Your task to perform on an android device: install app "HBO Max: Stream TV & Movies" Image 0: 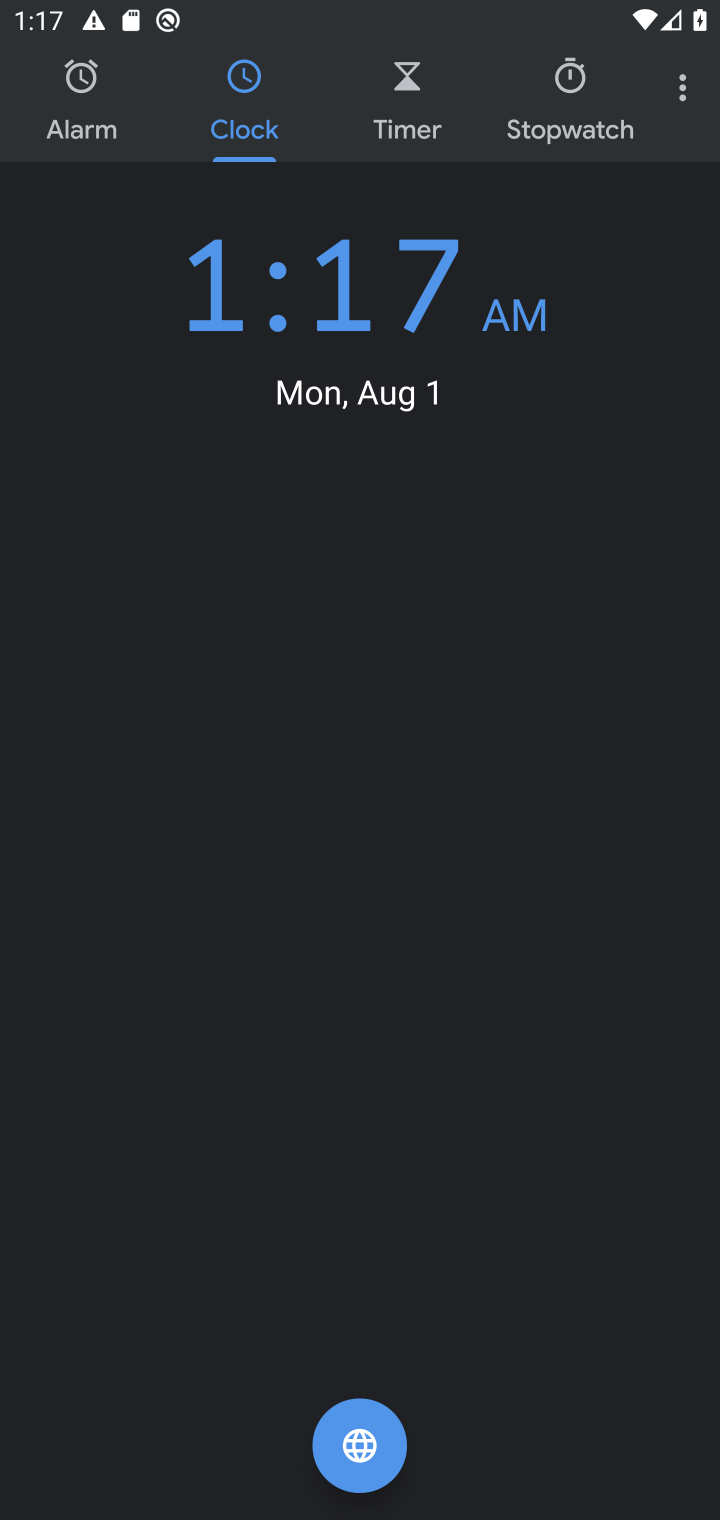
Step 0: press home button
Your task to perform on an android device: install app "HBO Max: Stream TV & Movies" Image 1: 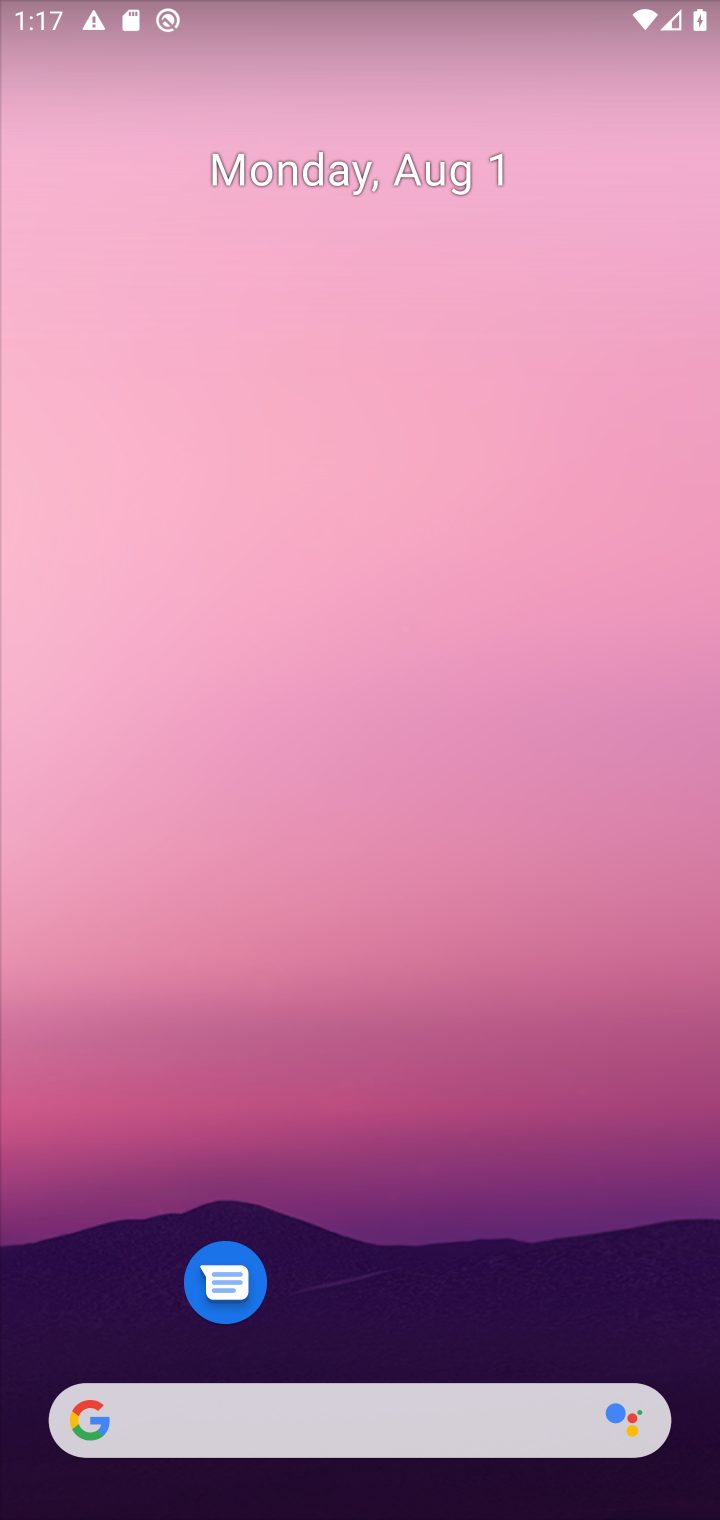
Step 1: drag from (399, 1336) to (384, 122)
Your task to perform on an android device: install app "HBO Max: Stream TV & Movies" Image 2: 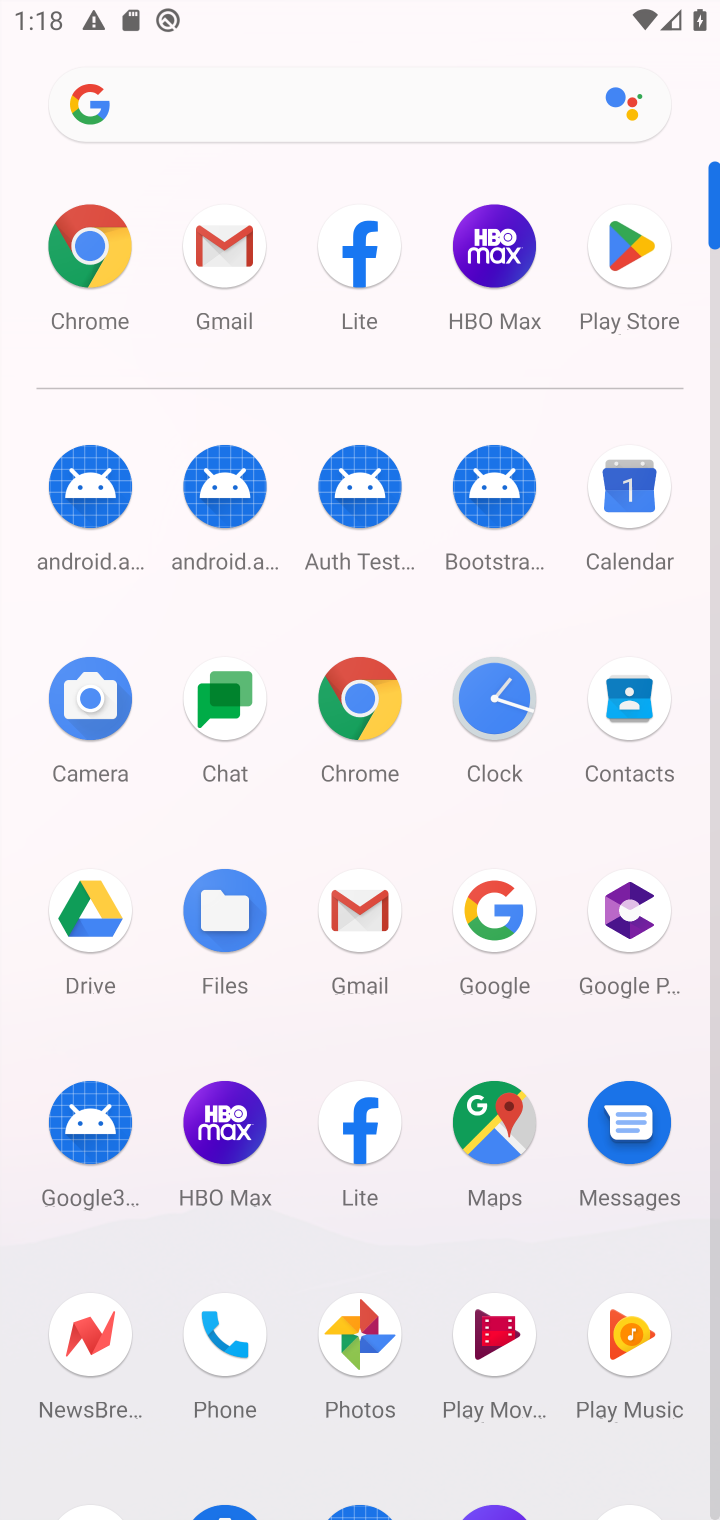
Step 2: click (622, 268)
Your task to perform on an android device: install app "HBO Max: Stream TV & Movies" Image 3: 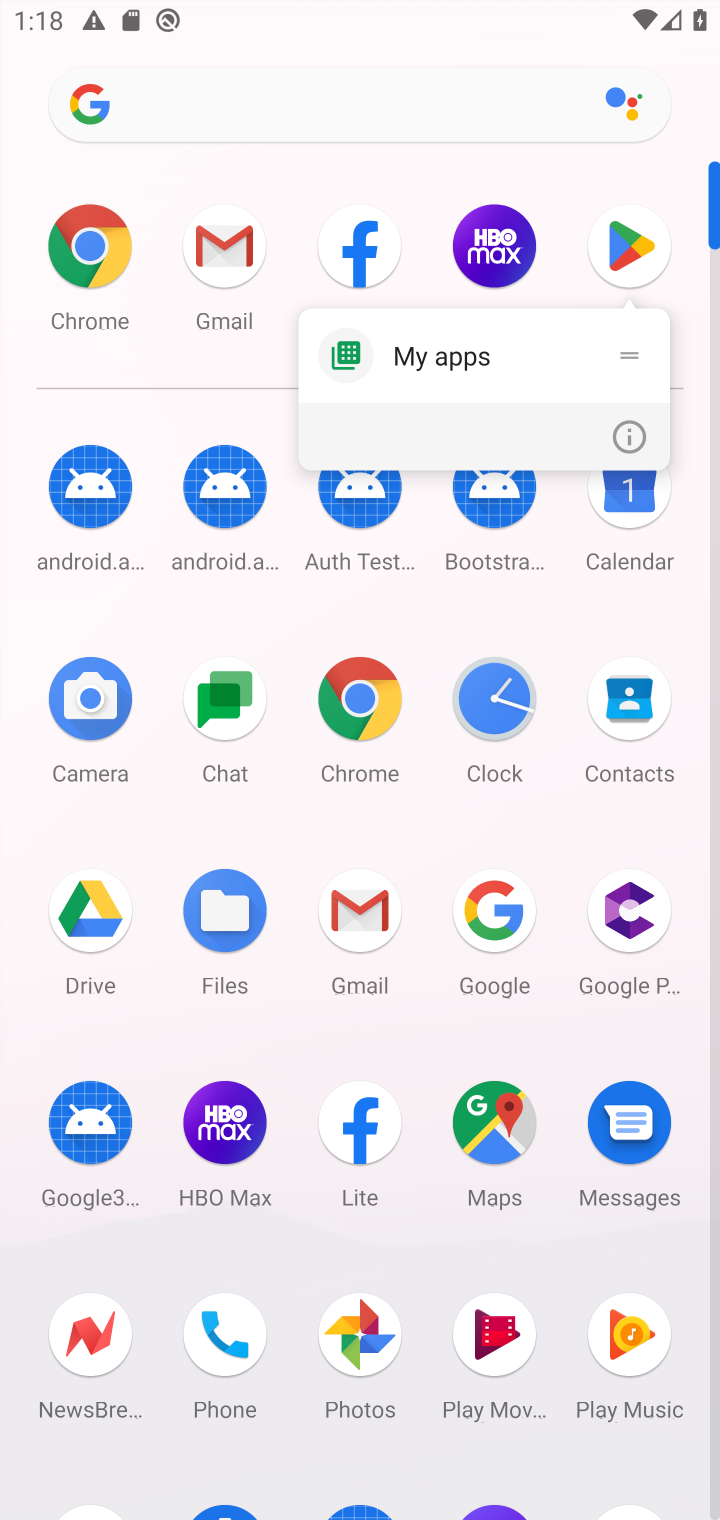
Step 3: click (644, 259)
Your task to perform on an android device: install app "HBO Max: Stream TV & Movies" Image 4: 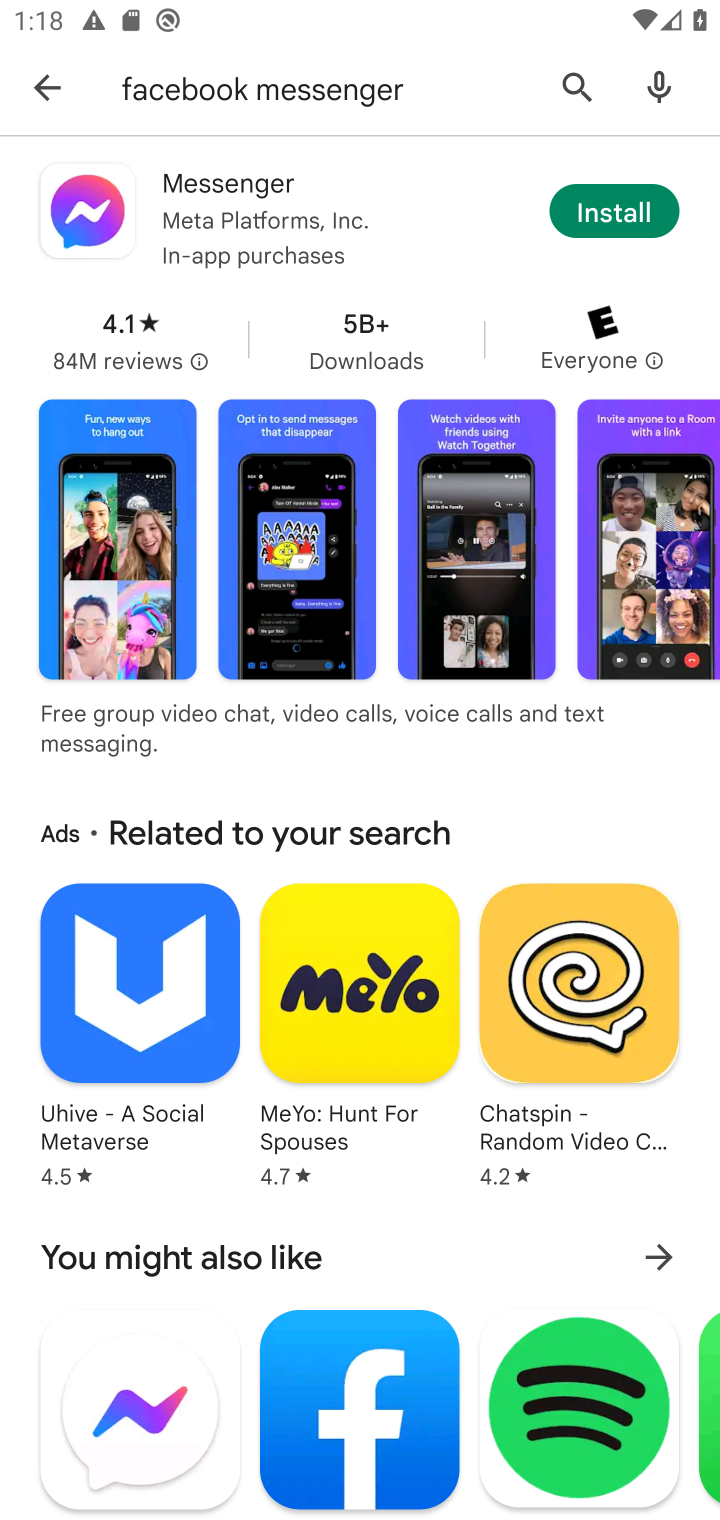
Step 4: click (30, 80)
Your task to perform on an android device: install app "HBO Max: Stream TV & Movies" Image 5: 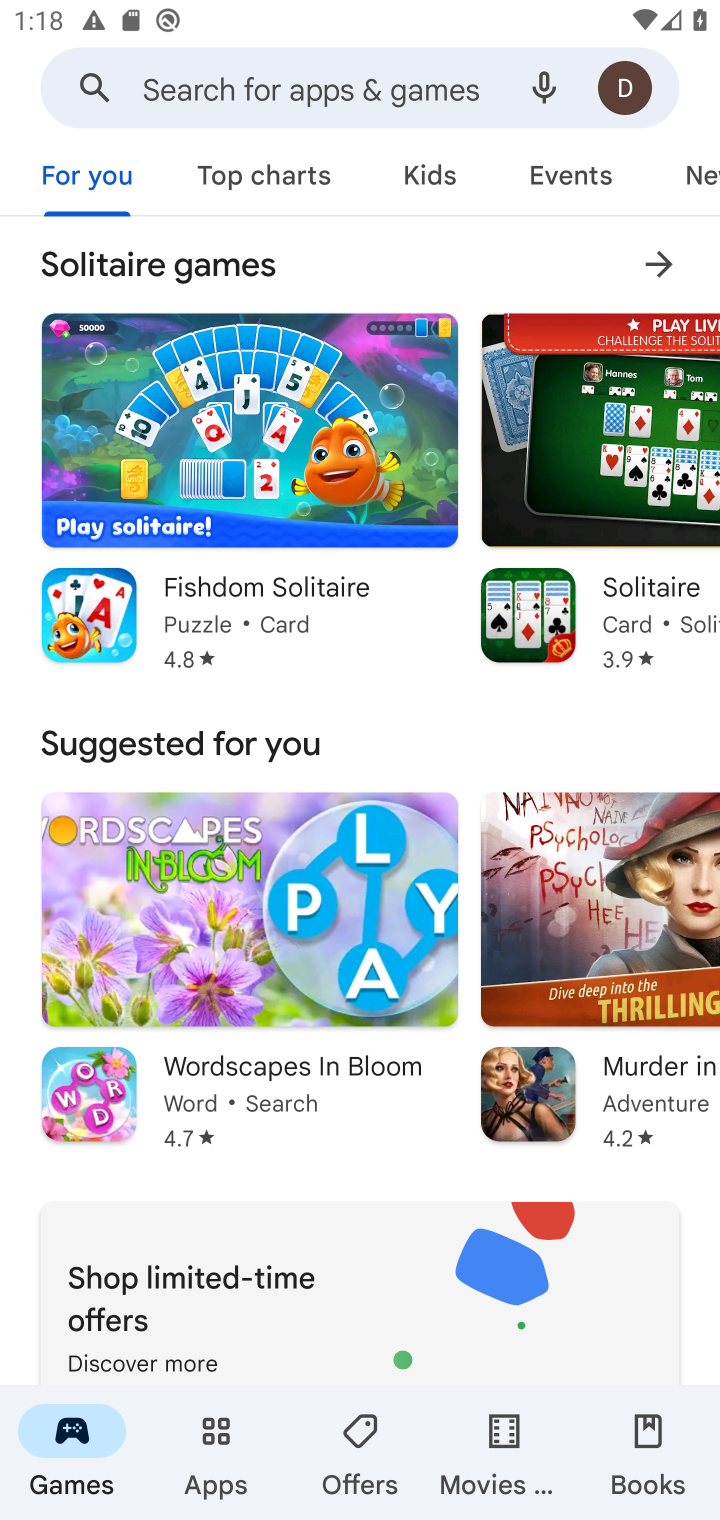
Step 5: click (186, 68)
Your task to perform on an android device: install app "HBO Max: Stream TV & Movies" Image 6: 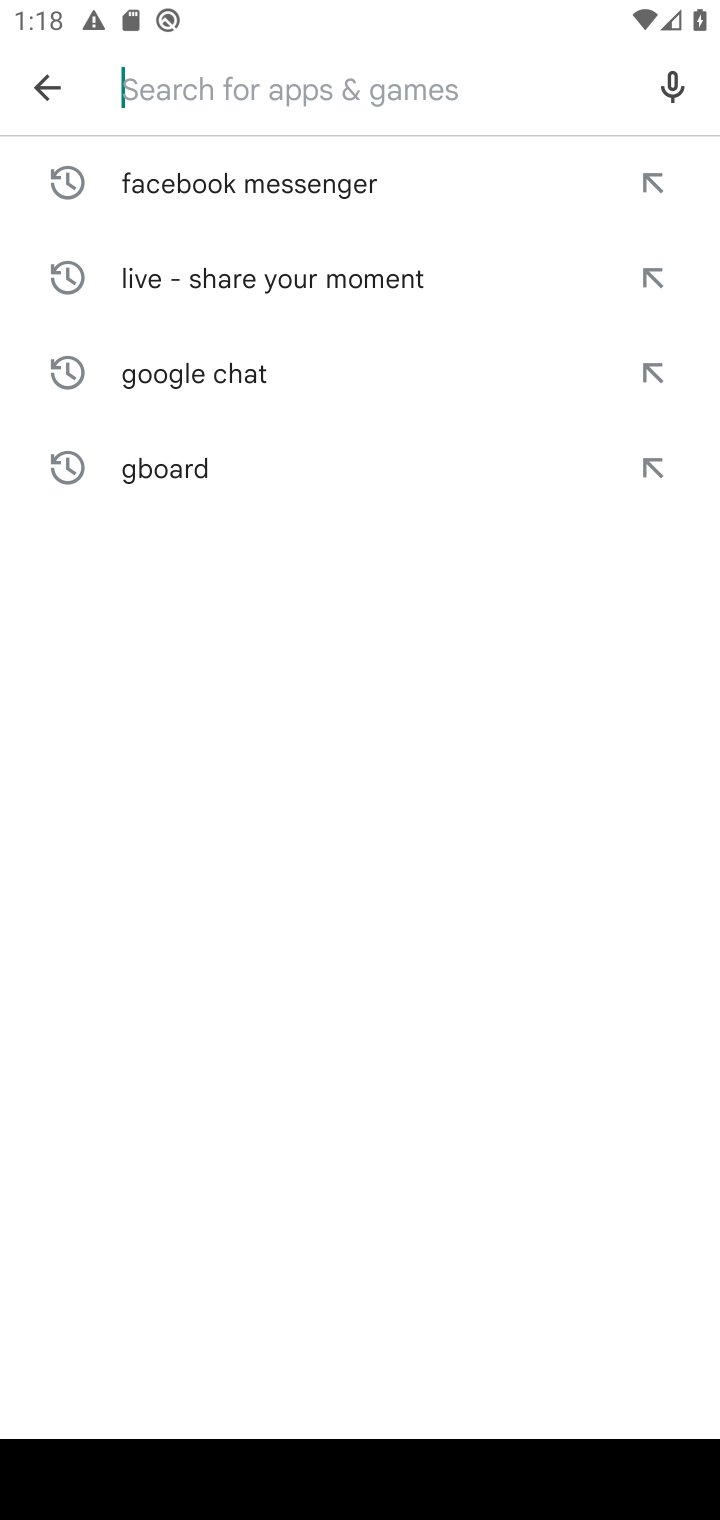
Step 6: type "HBO Max: Stream TV & Movies"
Your task to perform on an android device: install app "HBO Max: Stream TV & Movies" Image 7: 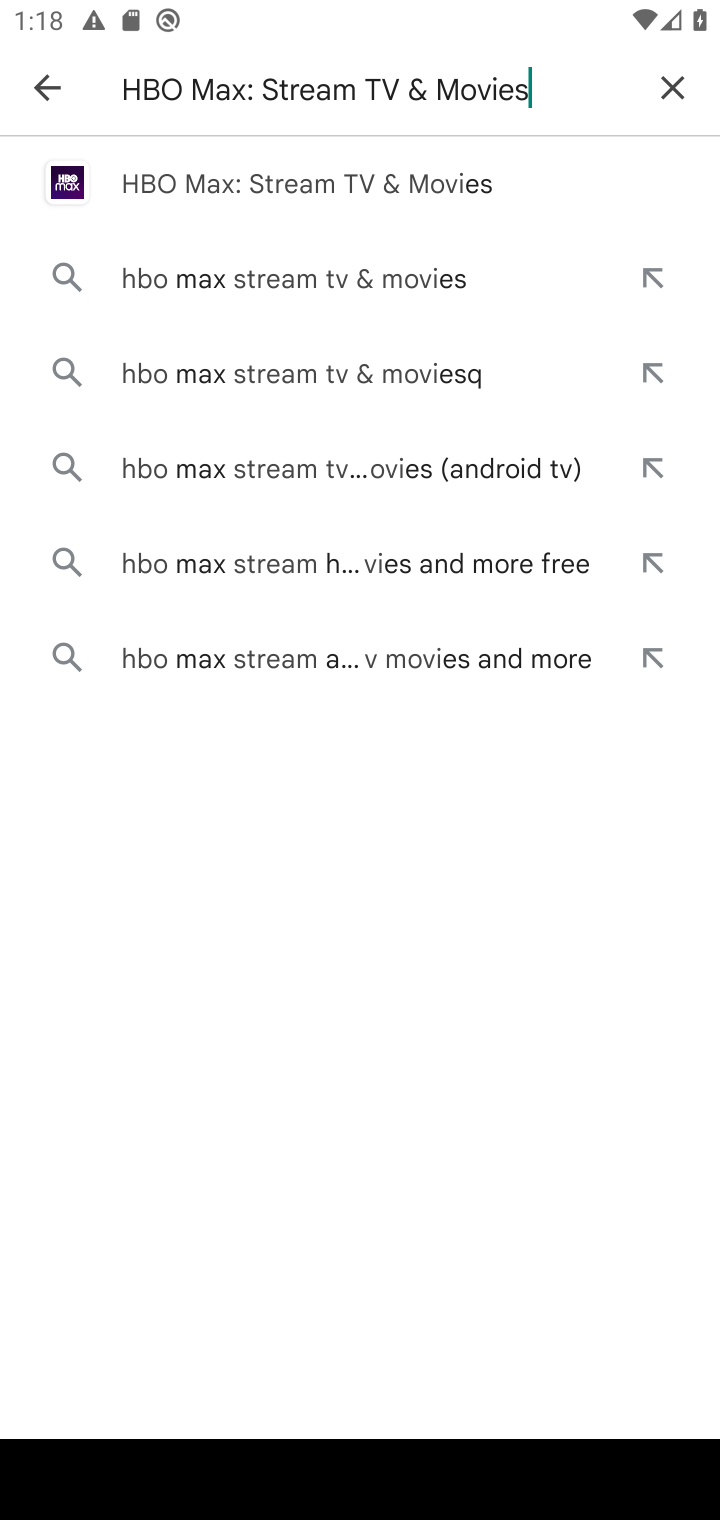
Step 7: type ""
Your task to perform on an android device: install app "HBO Max: Stream TV & Movies" Image 8: 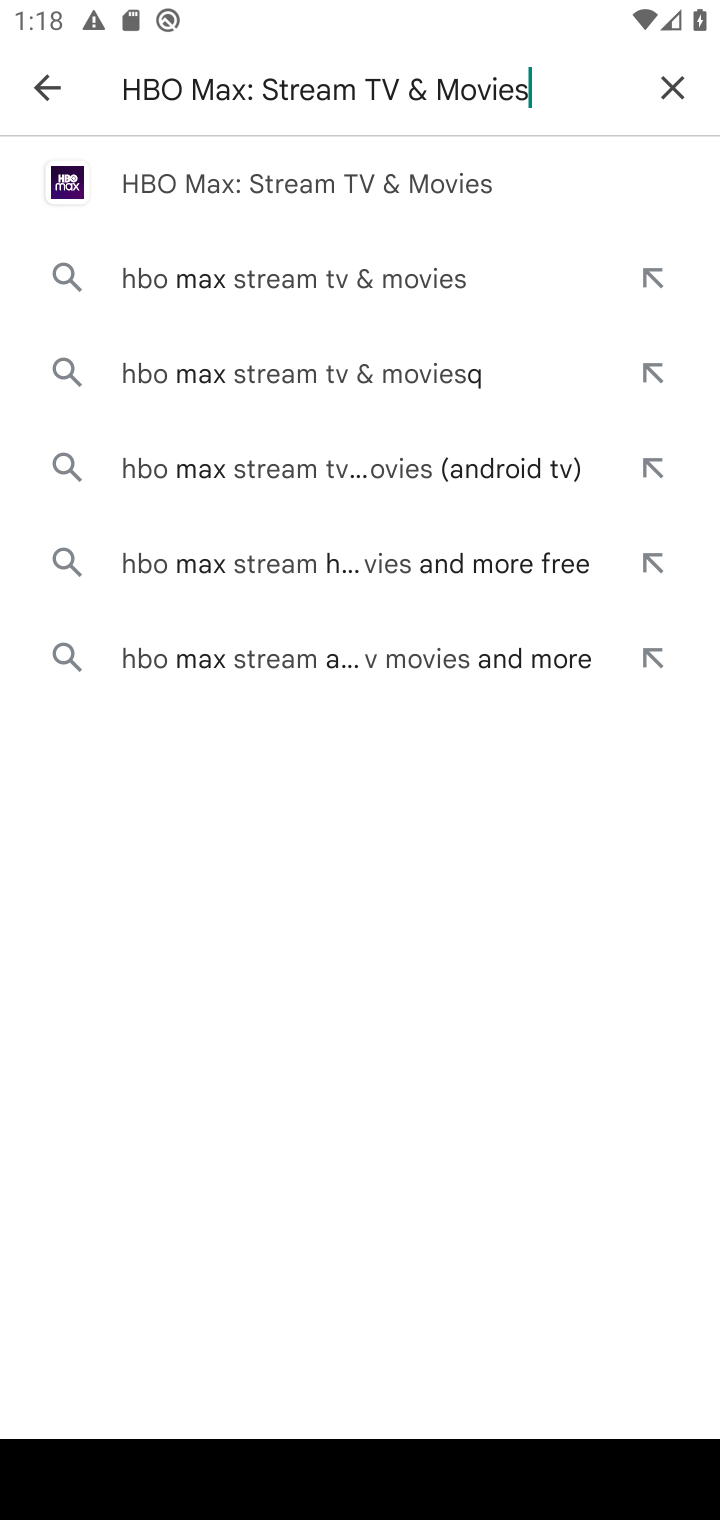
Step 8: click (245, 176)
Your task to perform on an android device: install app "HBO Max: Stream TV & Movies" Image 9: 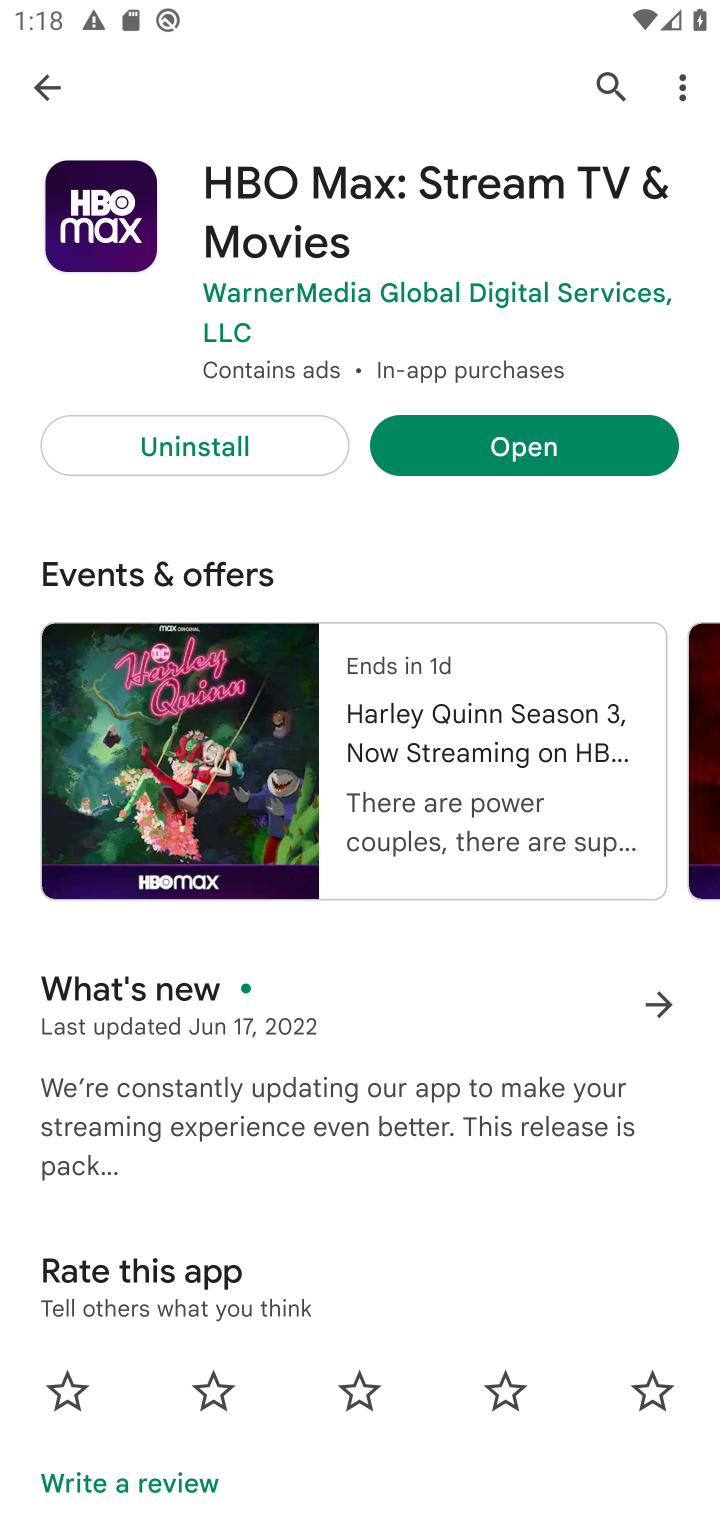
Step 9: click (565, 449)
Your task to perform on an android device: install app "HBO Max: Stream TV & Movies" Image 10: 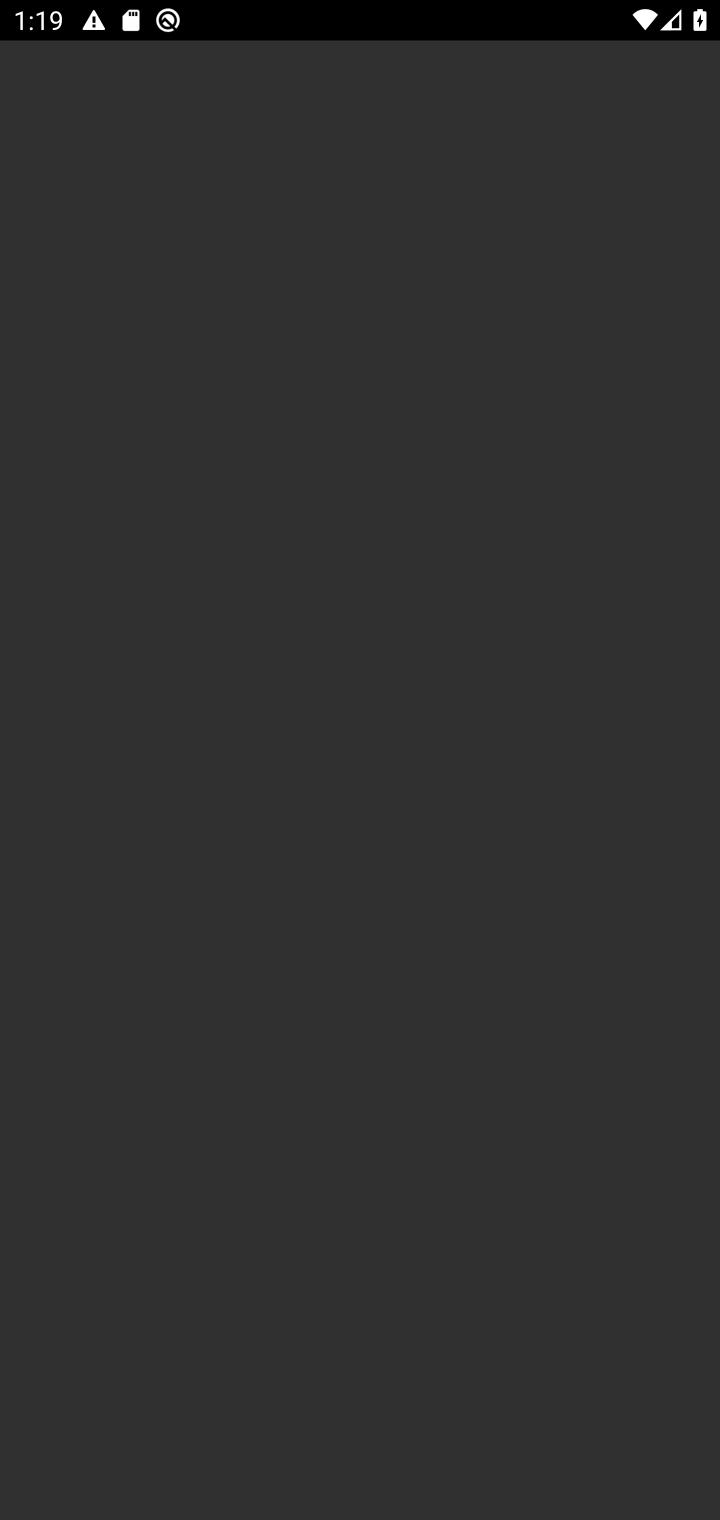
Step 10: task complete